Your task to perform on an android device: add a contact Image 0: 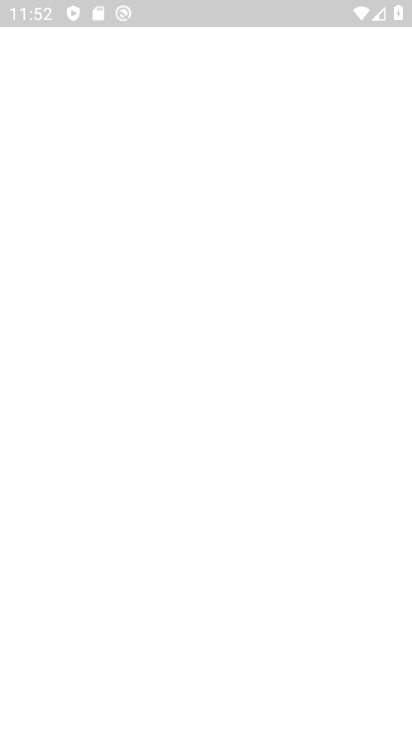
Step 0: drag from (372, 489) to (368, 126)
Your task to perform on an android device: add a contact Image 1: 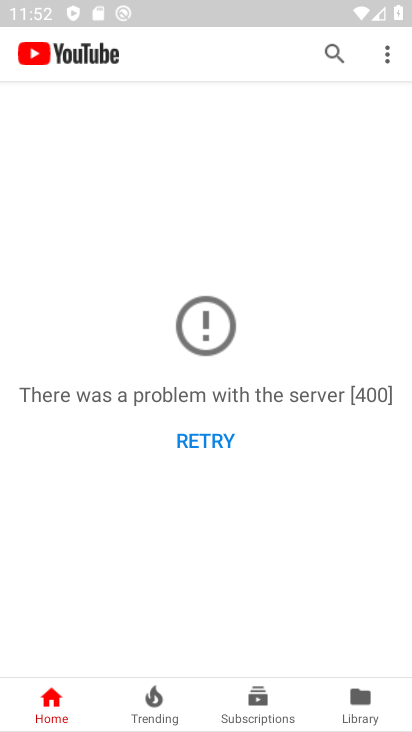
Step 1: press home button
Your task to perform on an android device: add a contact Image 2: 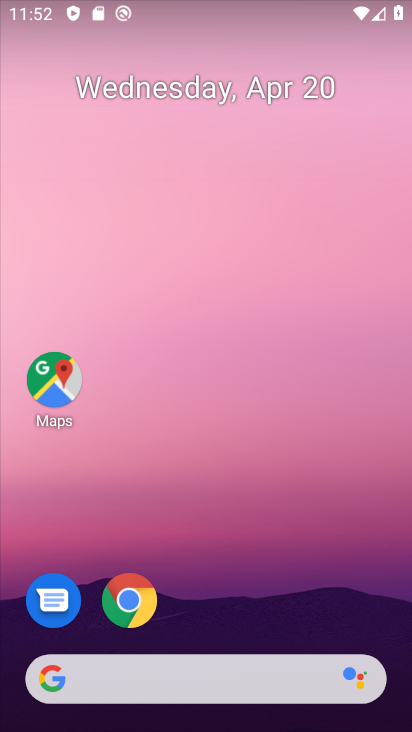
Step 2: drag from (361, 449) to (351, 135)
Your task to perform on an android device: add a contact Image 3: 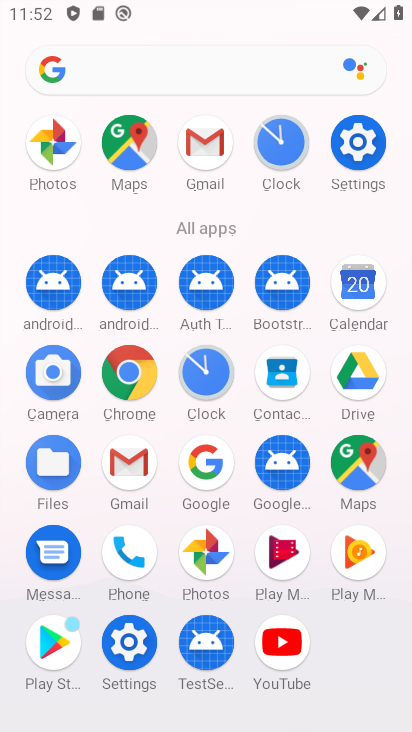
Step 3: click (292, 372)
Your task to perform on an android device: add a contact Image 4: 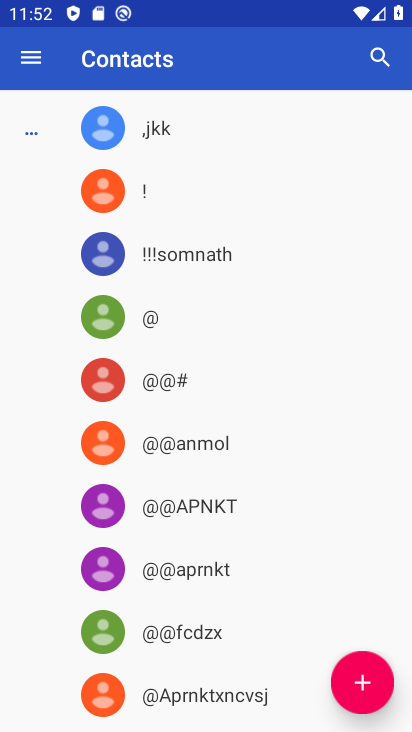
Step 4: click (350, 684)
Your task to perform on an android device: add a contact Image 5: 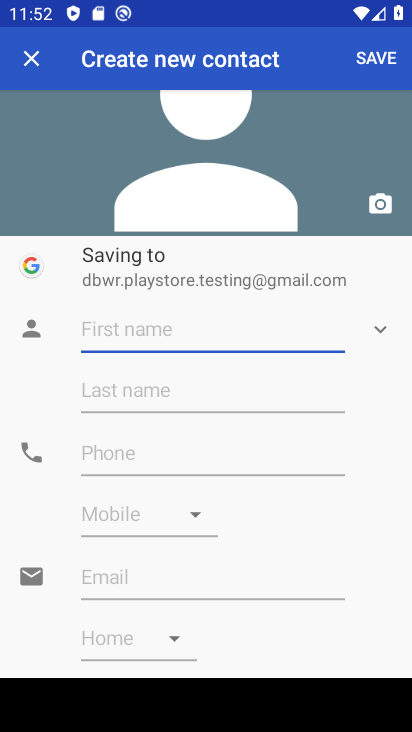
Step 5: click (173, 327)
Your task to perform on an android device: add a contact Image 6: 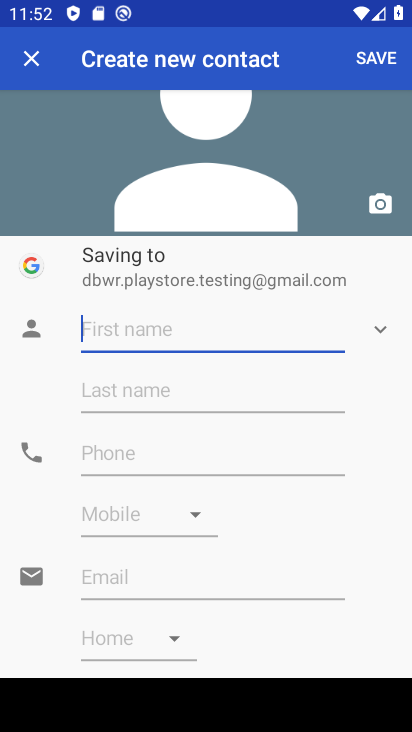
Step 6: type "somnath"
Your task to perform on an android device: add a contact Image 7: 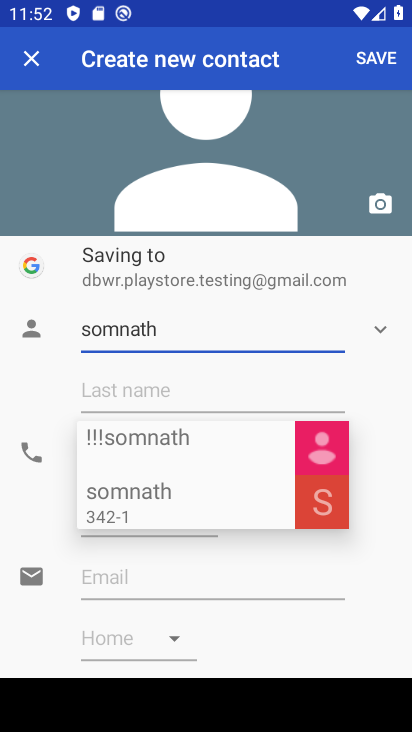
Step 7: click (220, 461)
Your task to perform on an android device: add a contact Image 8: 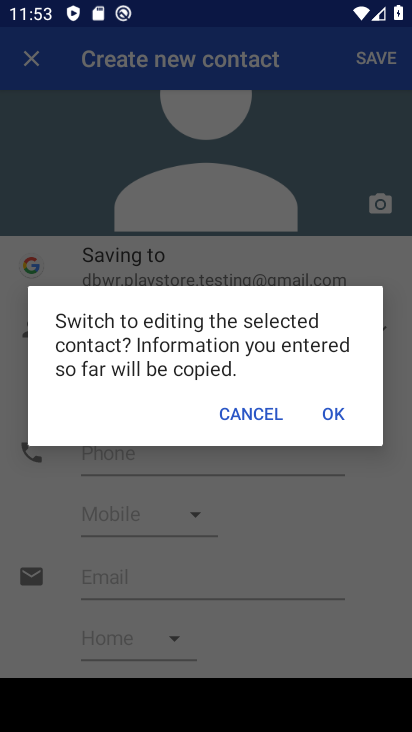
Step 8: type "38458954584"
Your task to perform on an android device: add a contact Image 9: 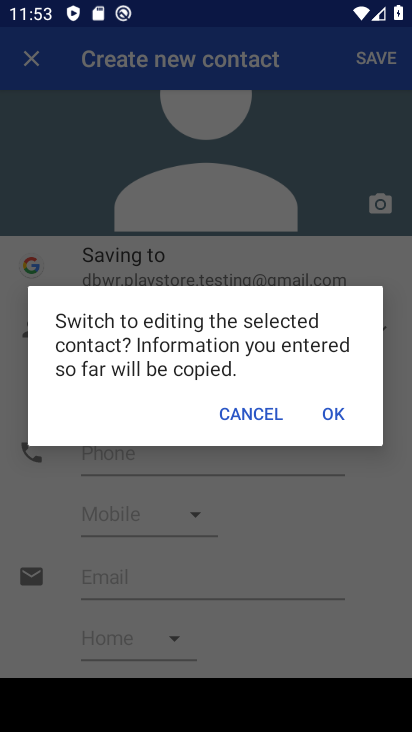
Step 9: click (331, 421)
Your task to perform on an android device: add a contact Image 10: 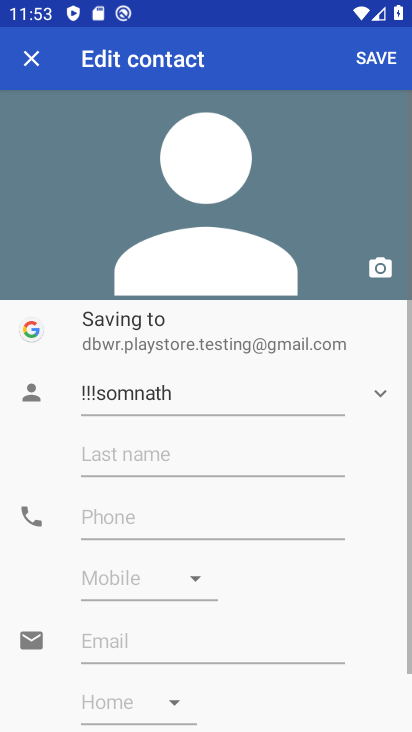
Step 10: click (336, 416)
Your task to perform on an android device: add a contact Image 11: 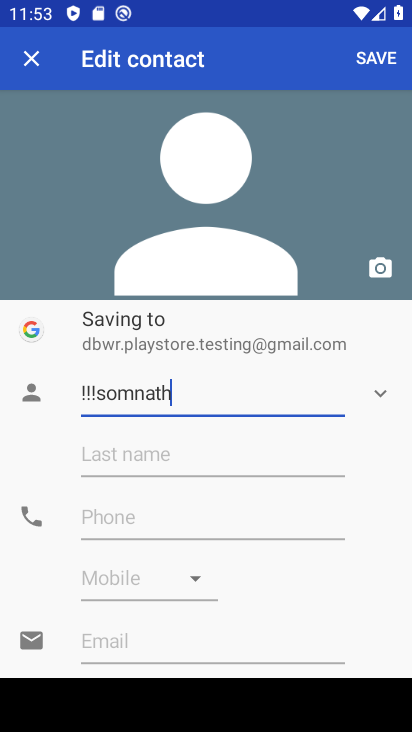
Step 11: type "f"
Your task to perform on an android device: add a contact Image 12: 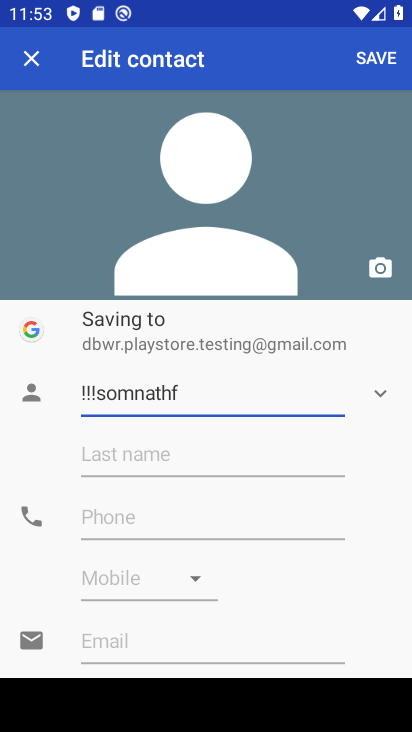
Step 12: click (206, 528)
Your task to perform on an android device: add a contact Image 13: 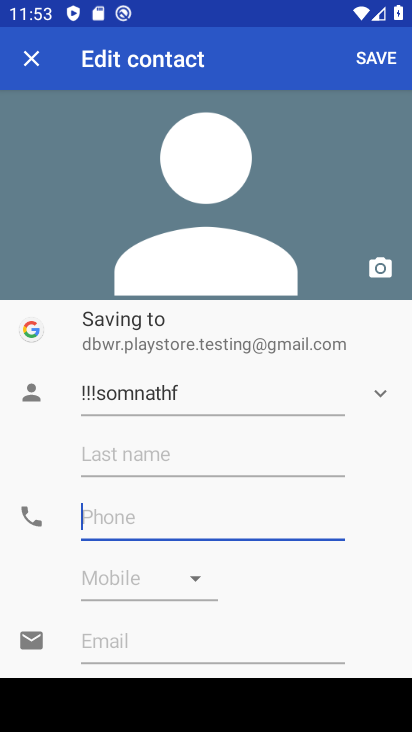
Step 13: type "5455i54u5u"
Your task to perform on an android device: add a contact Image 14: 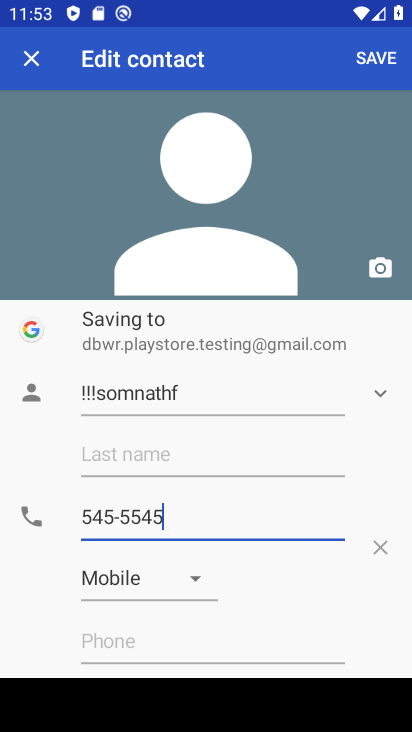
Step 14: click (366, 53)
Your task to perform on an android device: add a contact Image 15: 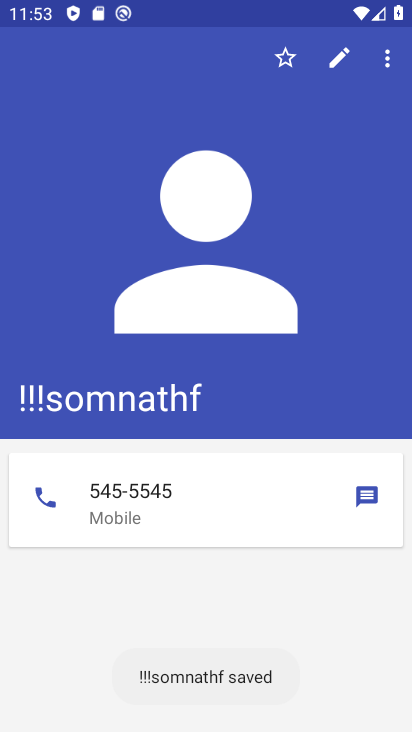
Step 15: task complete